Your task to perform on an android device: install app "Gmail" Image 0: 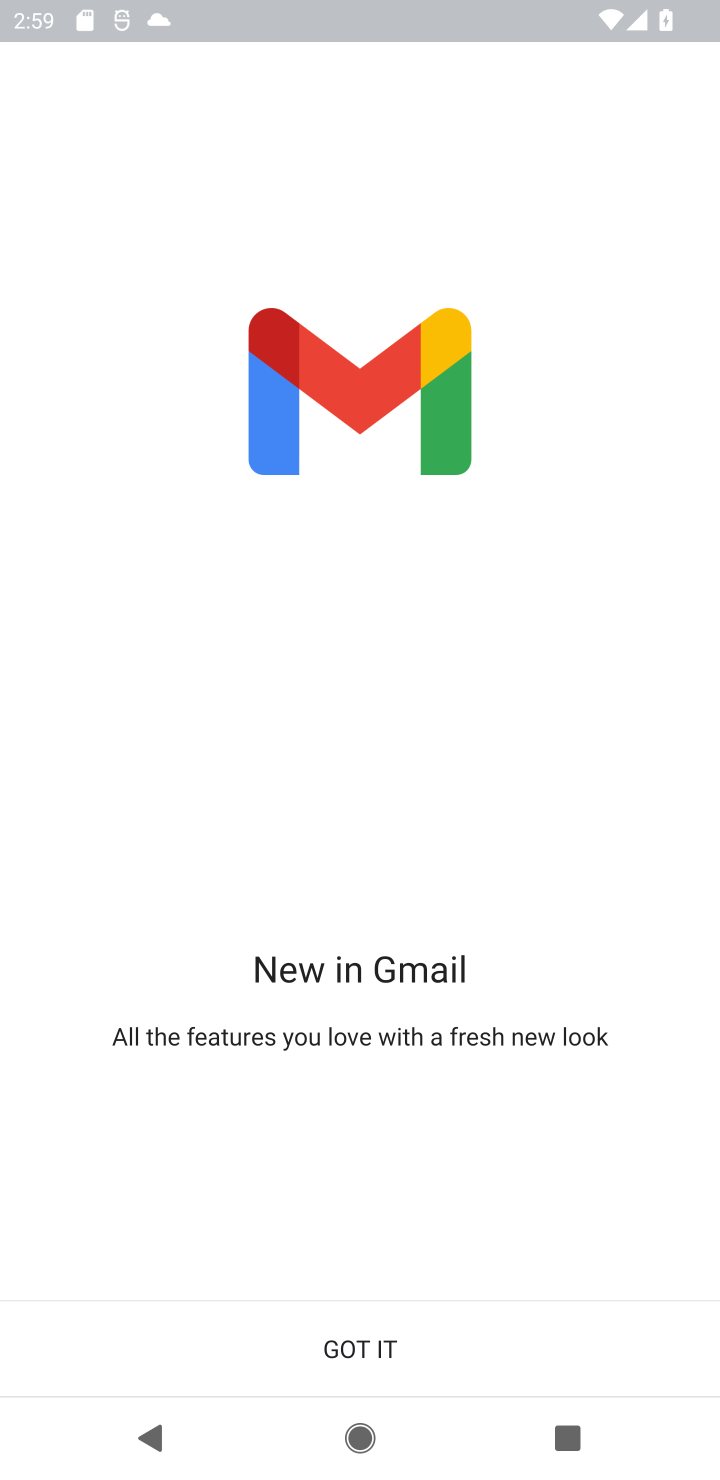
Step 0: click (396, 1330)
Your task to perform on an android device: install app "Gmail" Image 1: 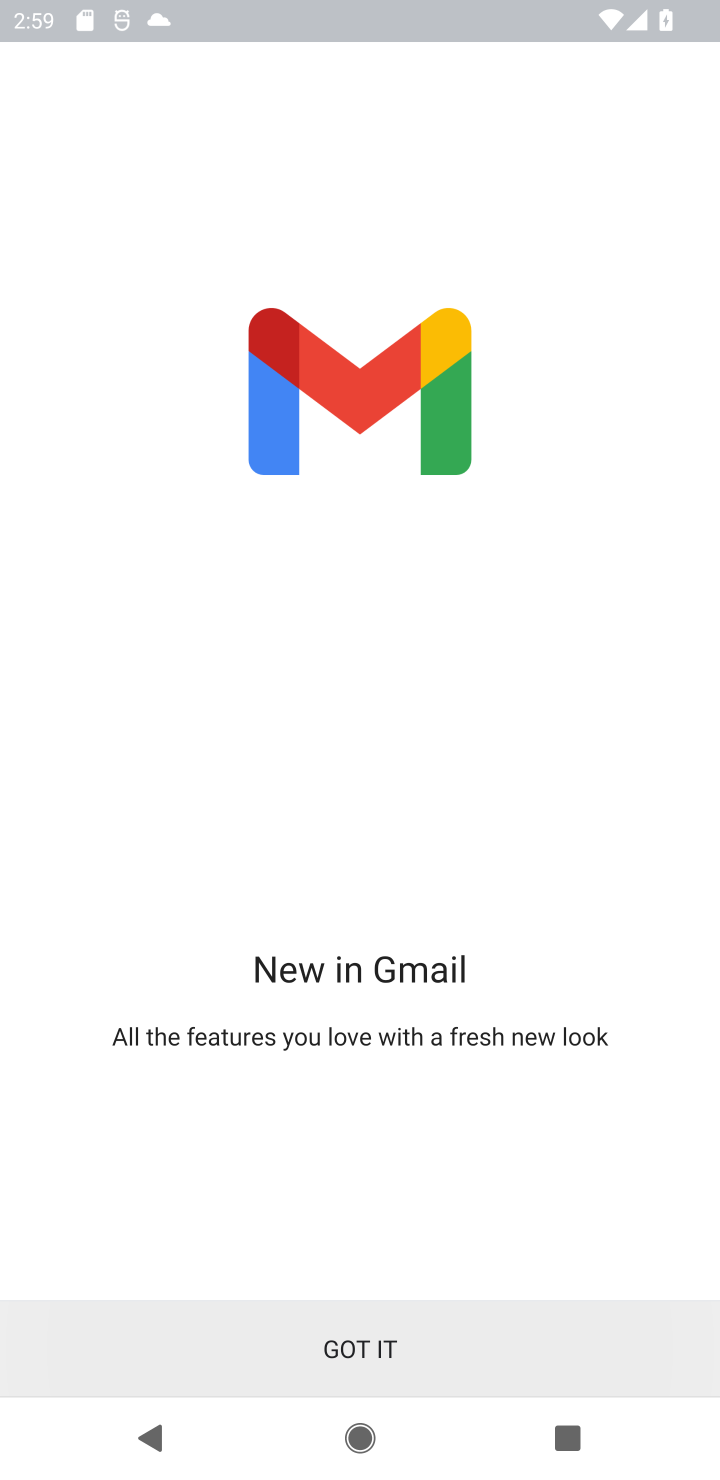
Step 1: click (396, 1330)
Your task to perform on an android device: install app "Gmail" Image 2: 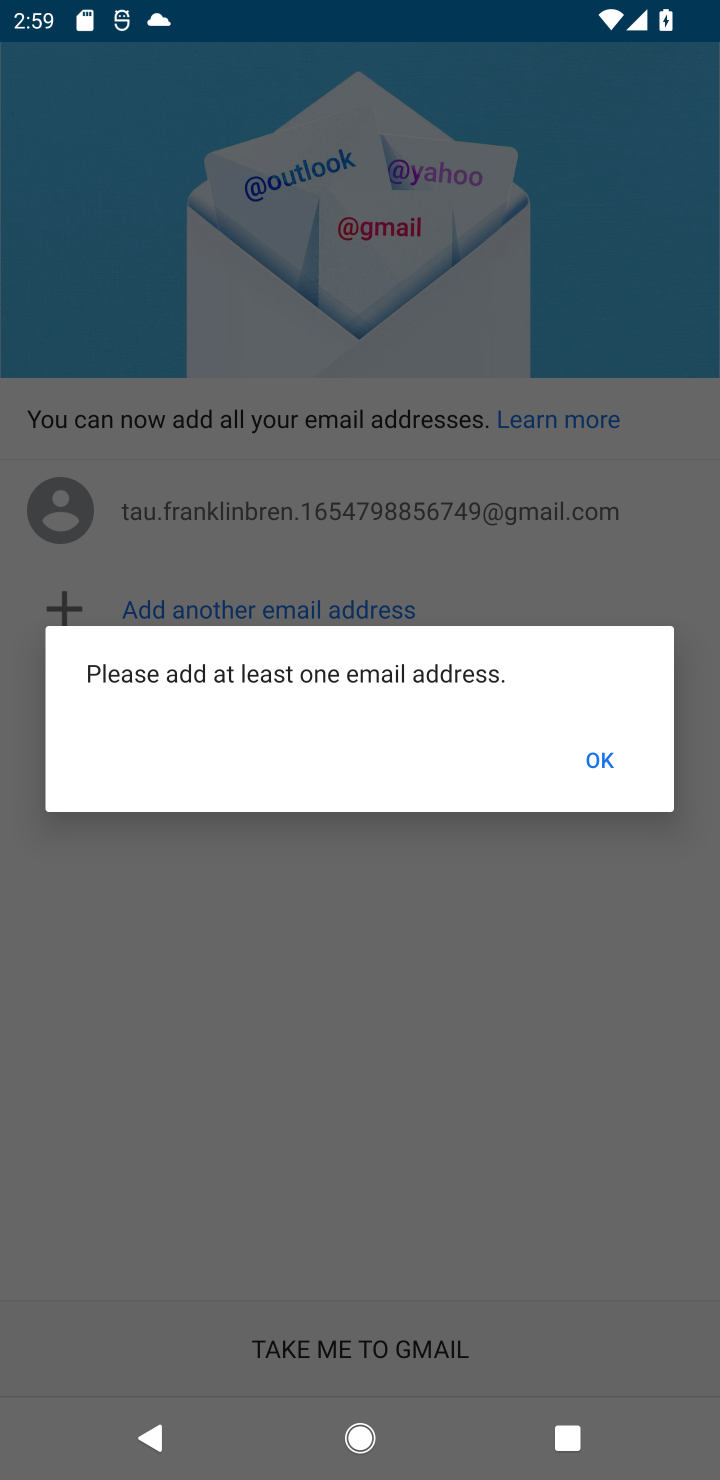
Step 2: click (632, 769)
Your task to perform on an android device: install app "Gmail" Image 3: 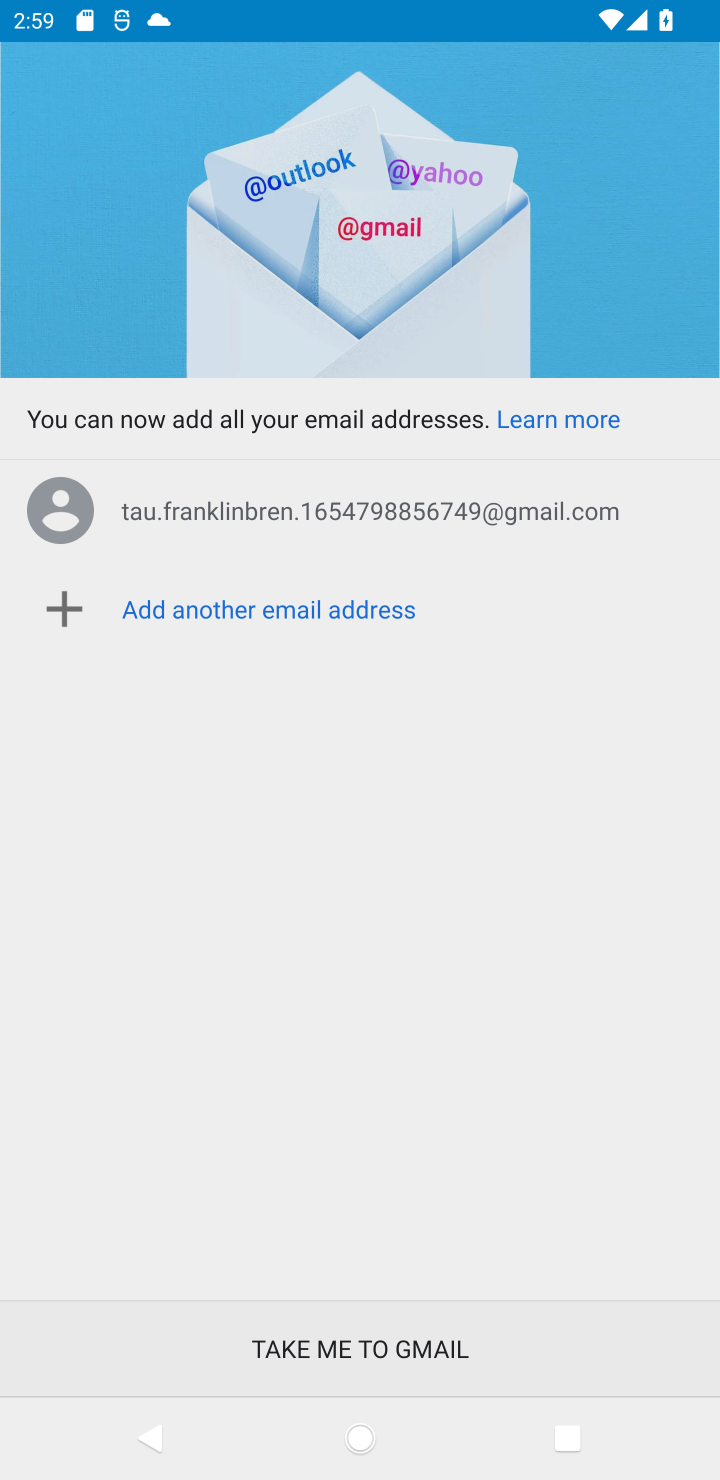
Step 3: task complete